Your task to perform on an android device: remove spam from my inbox in the gmail app Image 0: 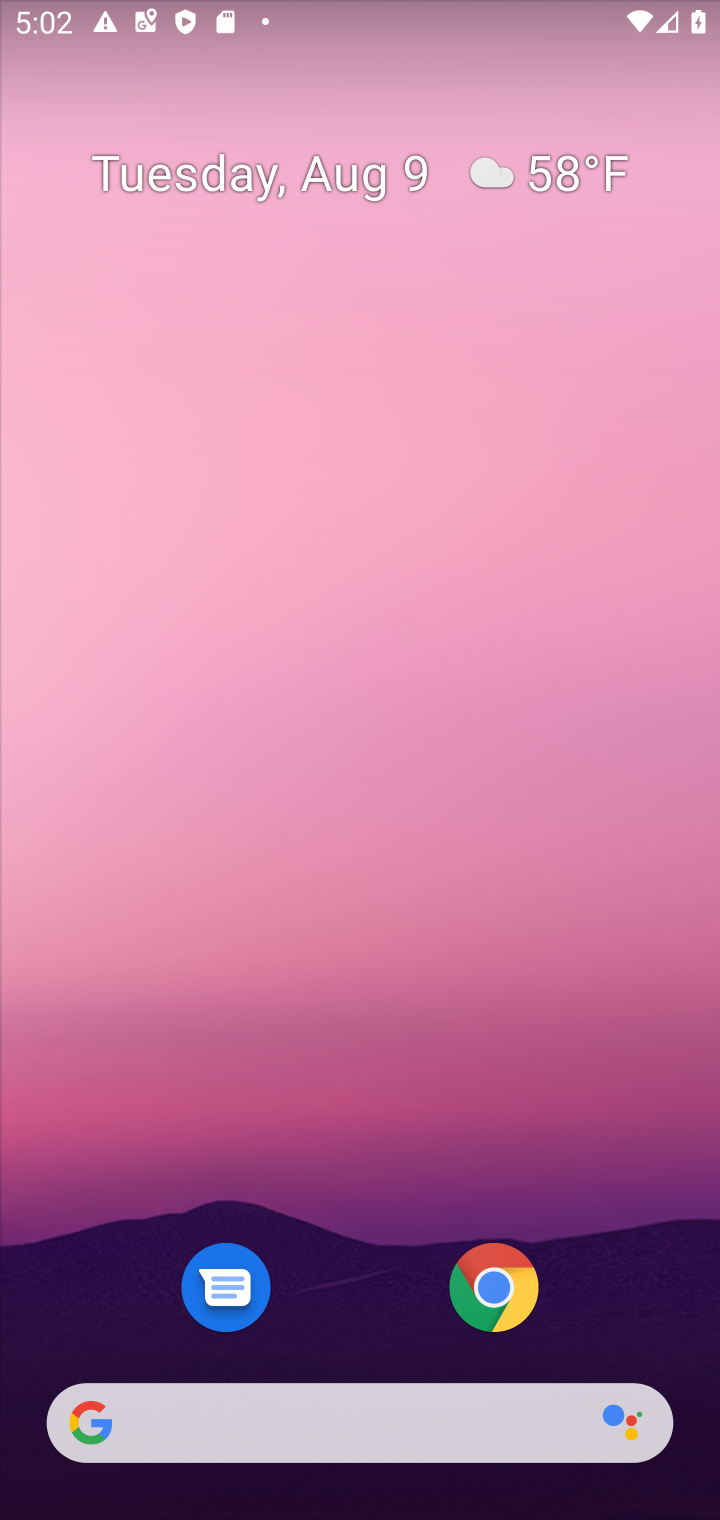
Step 0: drag from (324, 1242) to (371, 632)
Your task to perform on an android device: remove spam from my inbox in the gmail app Image 1: 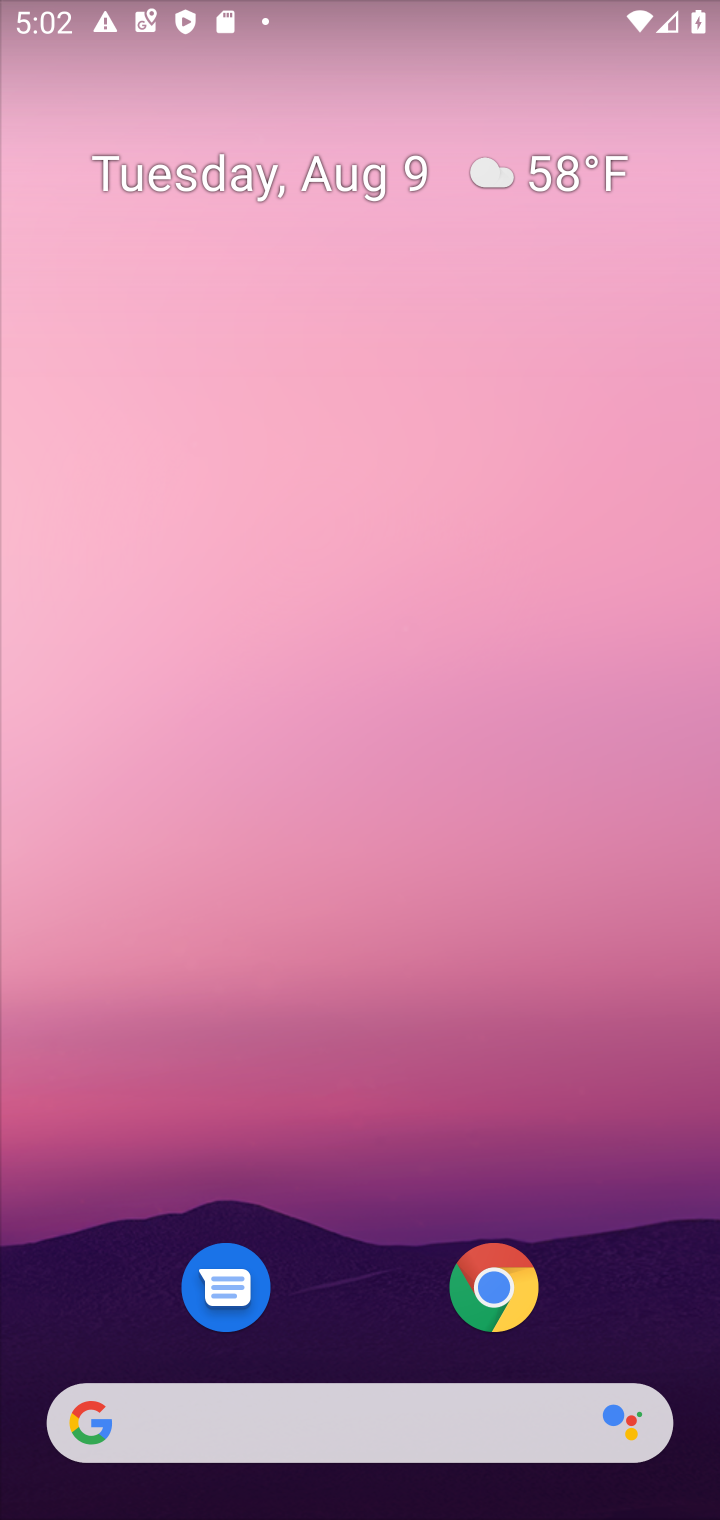
Step 1: drag from (401, 1077) to (242, 320)
Your task to perform on an android device: remove spam from my inbox in the gmail app Image 2: 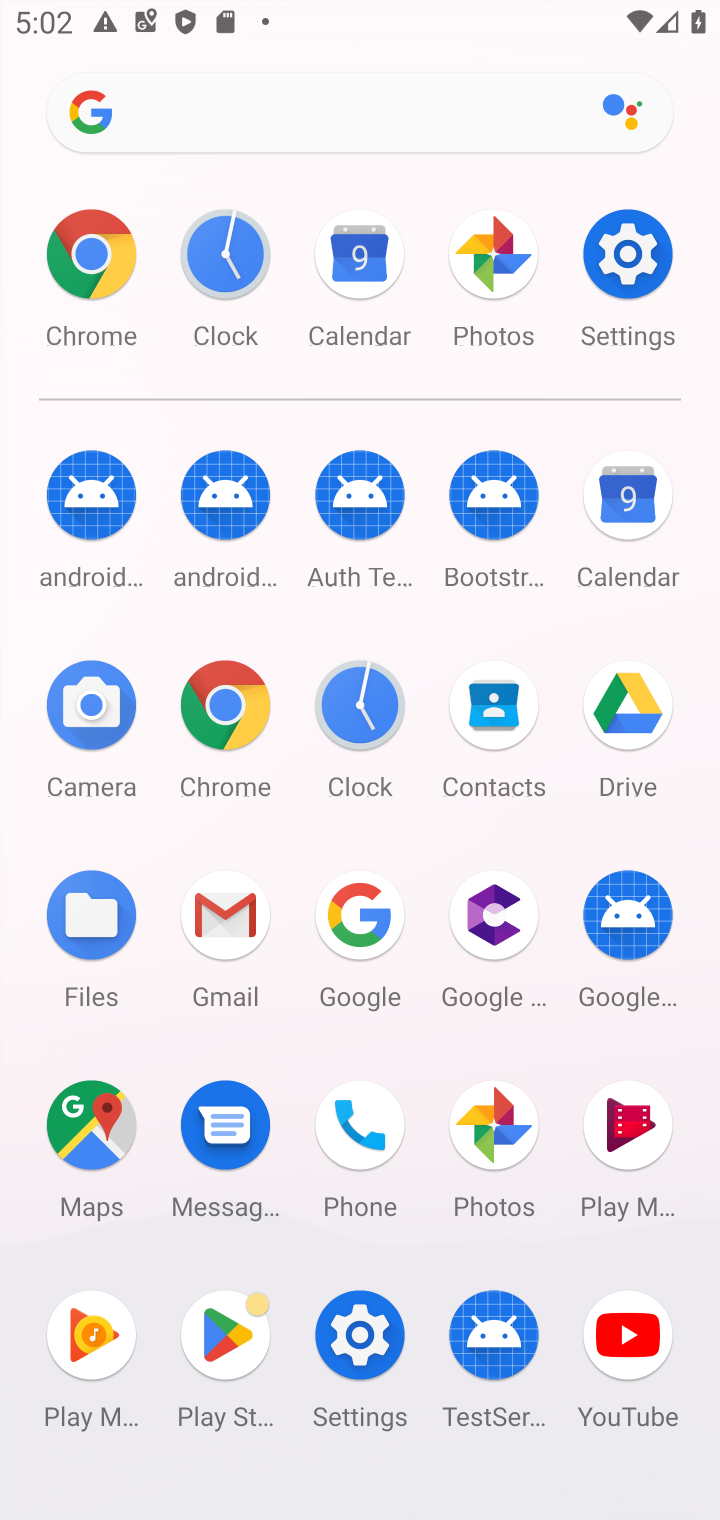
Step 2: click (252, 927)
Your task to perform on an android device: remove spam from my inbox in the gmail app Image 3: 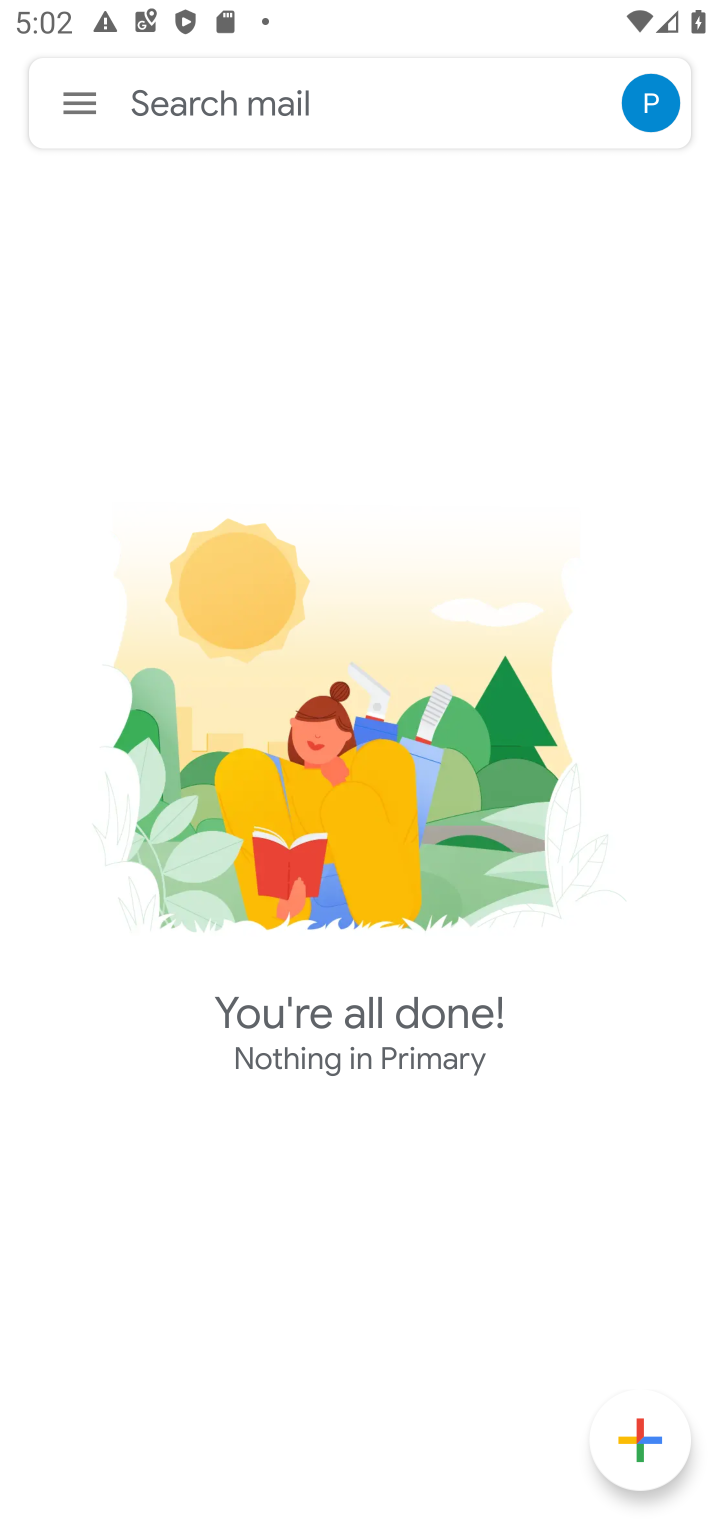
Step 3: click (71, 96)
Your task to perform on an android device: remove spam from my inbox in the gmail app Image 4: 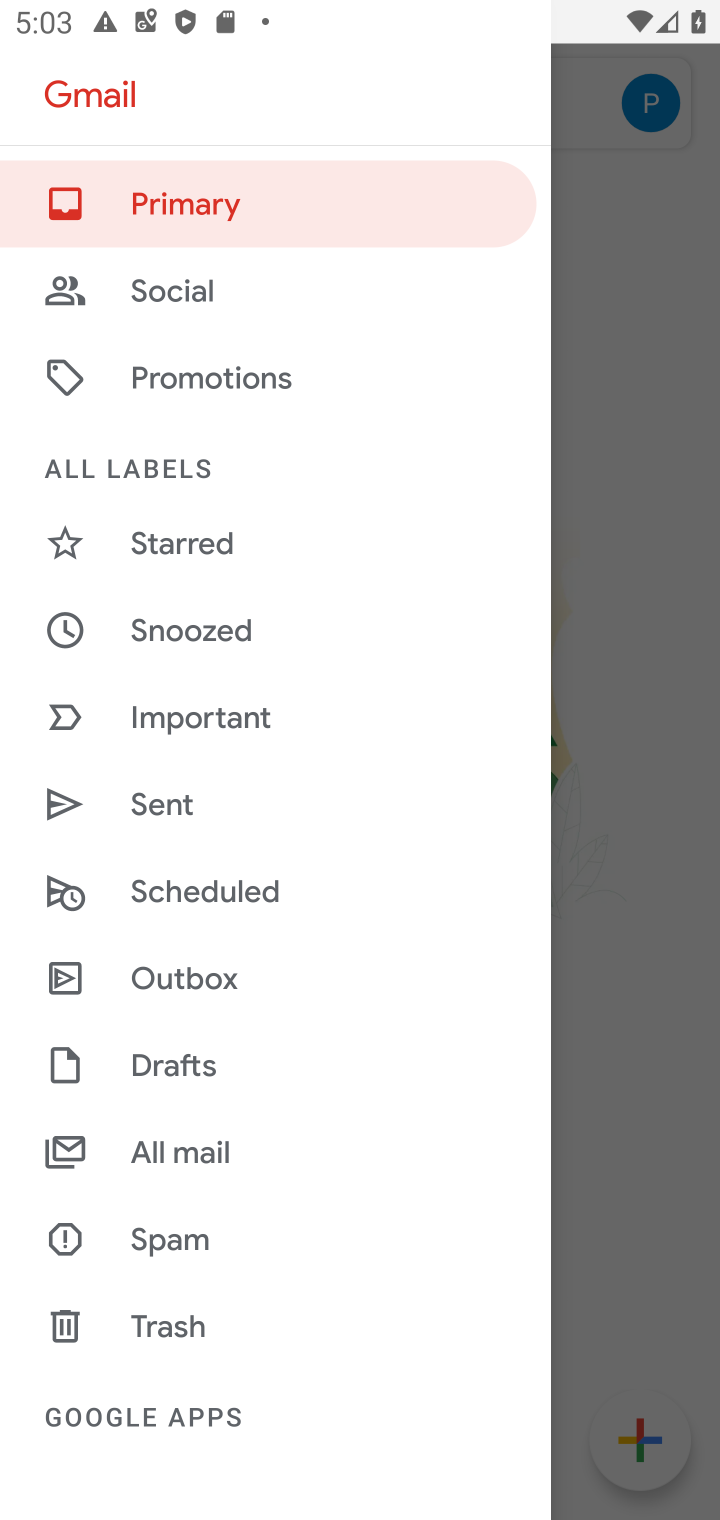
Step 4: click (164, 1242)
Your task to perform on an android device: remove spam from my inbox in the gmail app Image 5: 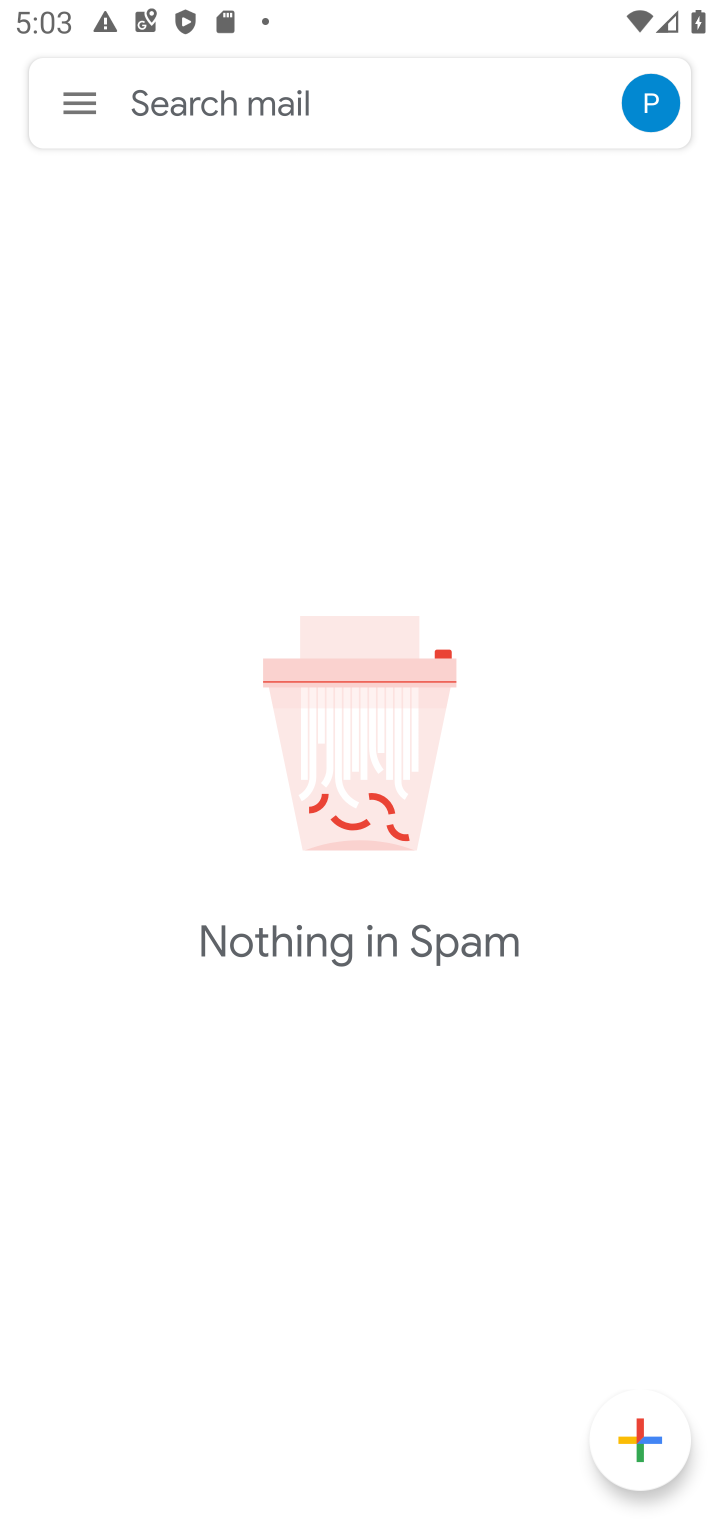
Step 5: task complete